Your task to perform on an android device: Open Yahoo.com Image 0: 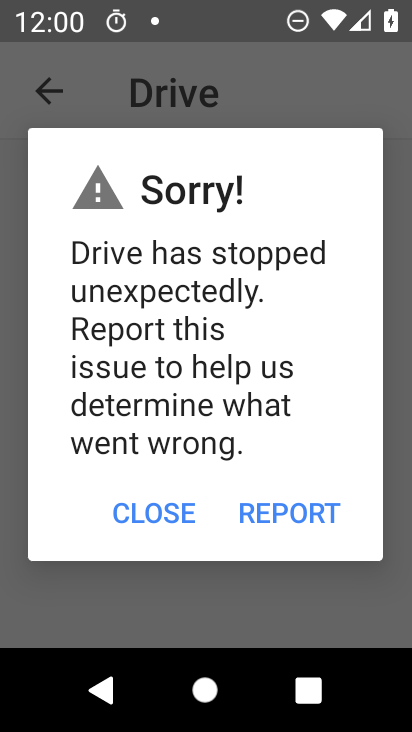
Step 0: press back button
Your task to perform on an android device: Open Yahoo.com Image 1: 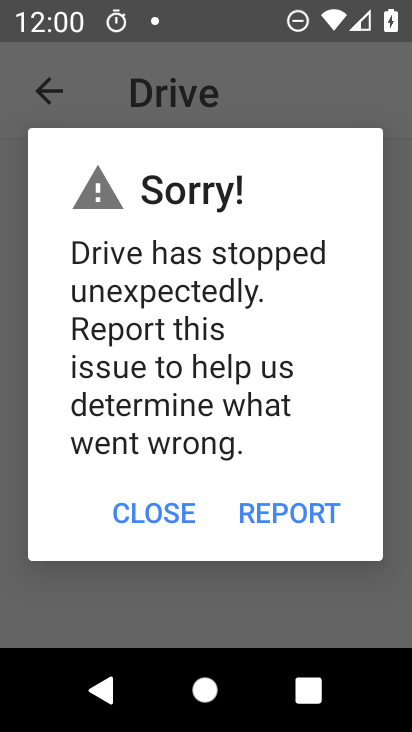
Step 1: press home button
Your task to perform on an android device: Open Yahoo.com Image 2: 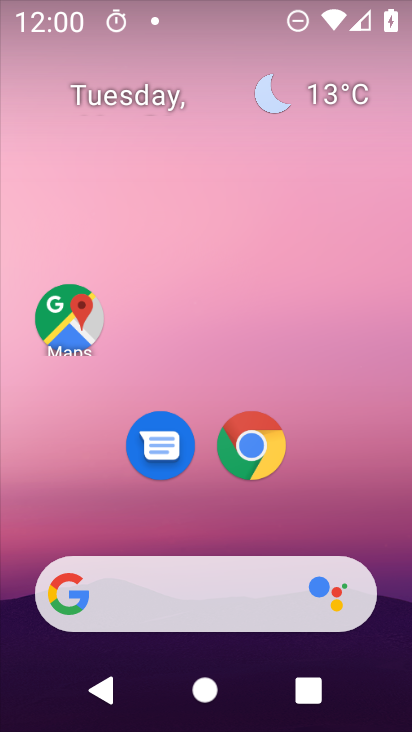
Step 2: click (260, 434)
Your task to perform on an android device: Open Yahoo.com Image 3: 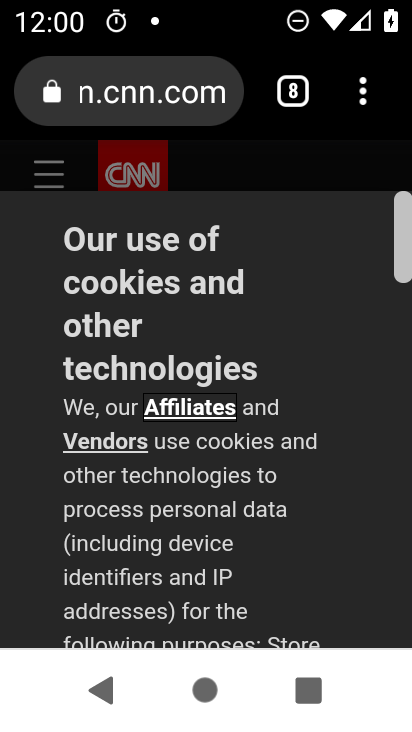
Step 3: click (296, 93)
Your task to perform on an android device: Open Yahoo.com Image 4: 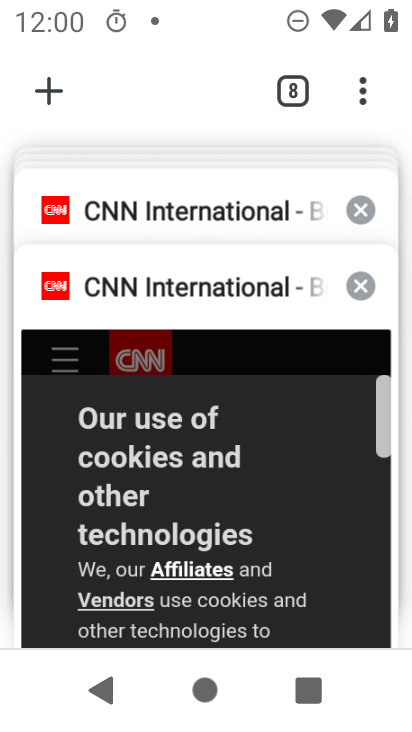
Step 4: drag from (172, 340) to (150, 655)
Your task to perform on an android device: Open Yahoo.com Image 5: 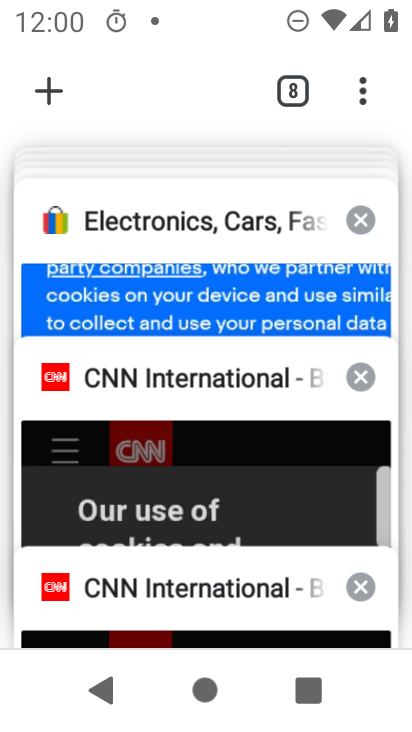
Step 5: drag from (203, 236) to (170, 676)
Your task to perform on an android device: Open Yahoo.com Image 6: 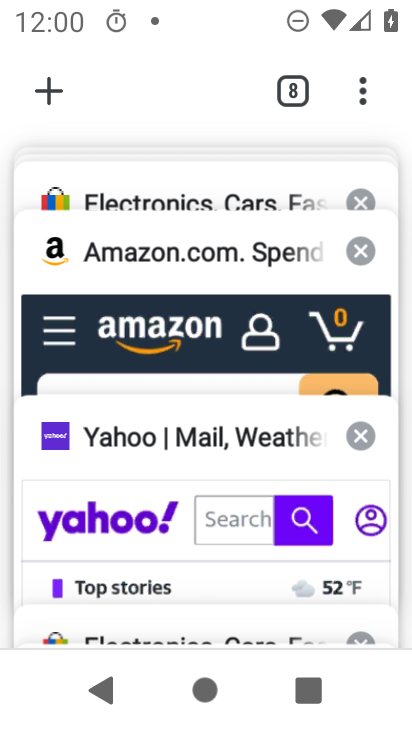
Step 6: click (101, 441)
Your task to perform on an android device: Open Yahoo.com Image 7: 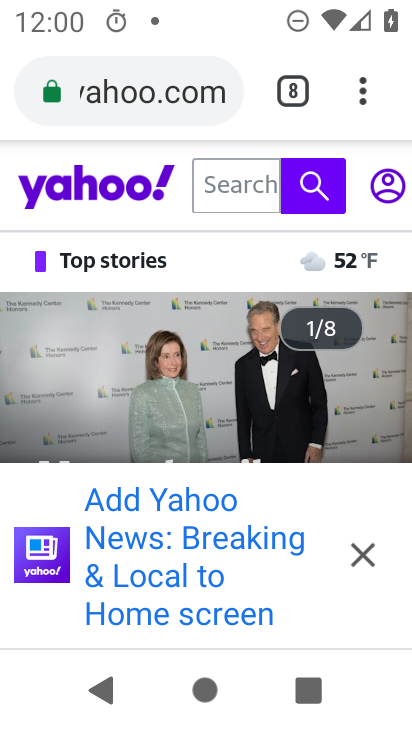
Step 7: task complete